Your task to perform on an android device: Open Youtube and go to the subscriptions tab Image 0: 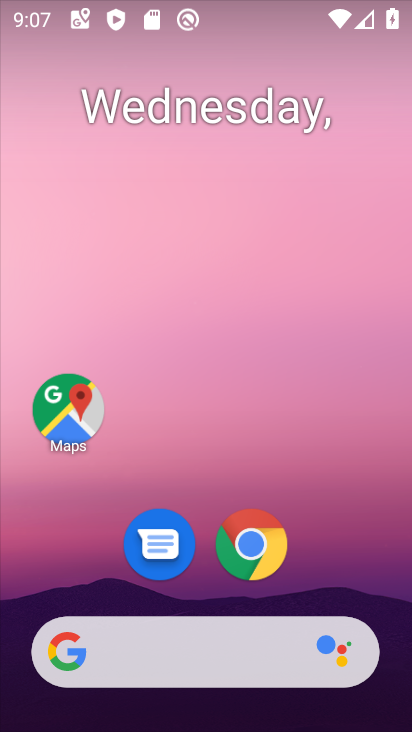
Step 0: drag from (214, 595) to (172, 147)
Your task to perform on an android device: Open Youtube and go to the subscriptions tab Image 1: 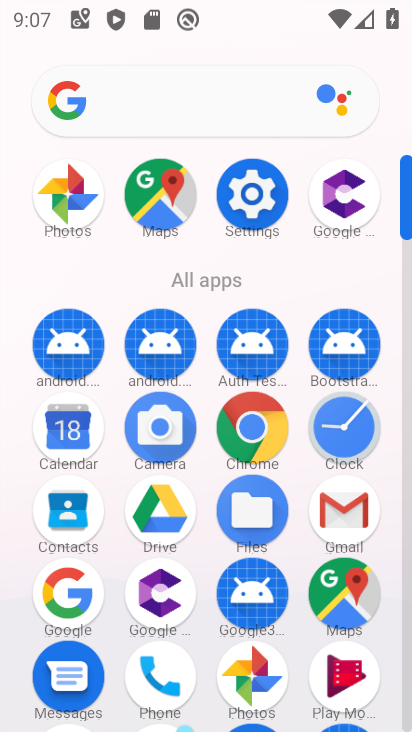
Step 1: drag from (207, 657) to (215, 96)
Your task to perform on an android device: Open Youtube and go to the subscriptions tab Image 2: 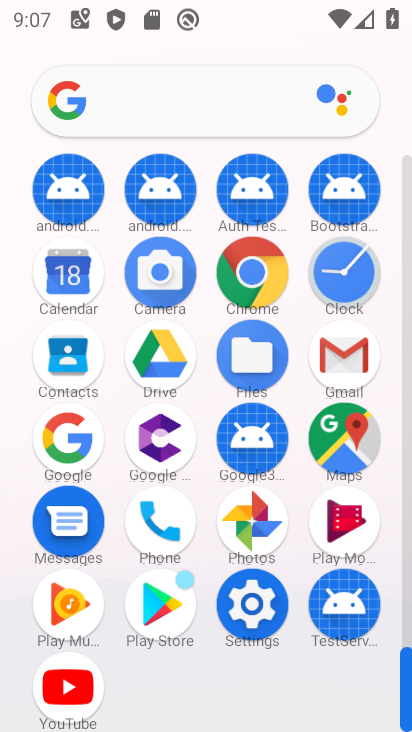
Step 2: click (65, 698)
Your task to perform on an android device: Open Youtube and go to the subscriptions tab Image 3: 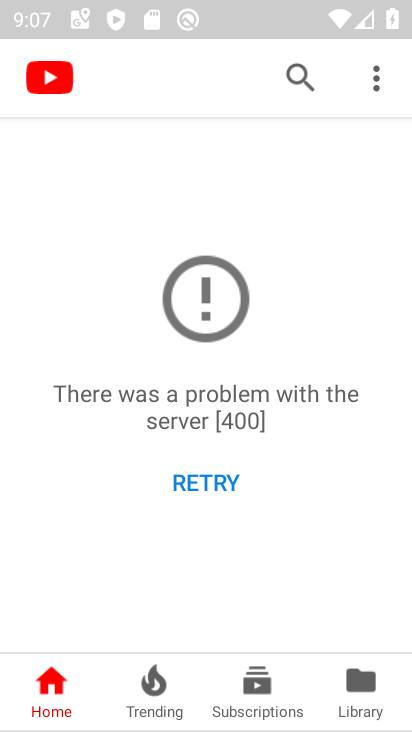
Step 3: click (268, 679)
Your task to perform on an android device: Open Youtube and go to the subscriptions tab Image 4: 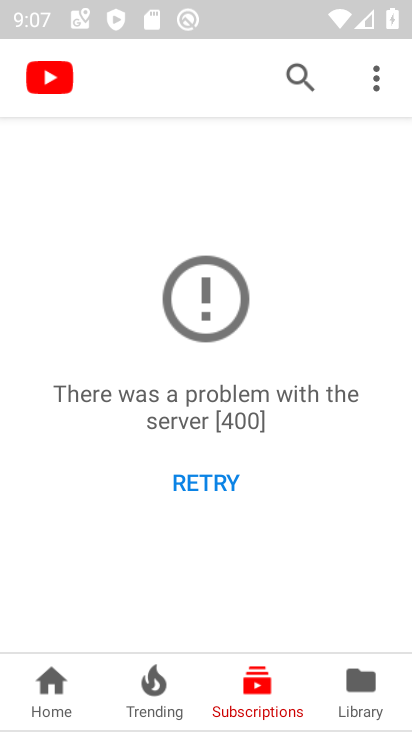
Step 4: task complete